Your task to perform on an android device: Open Amazon Image 0: 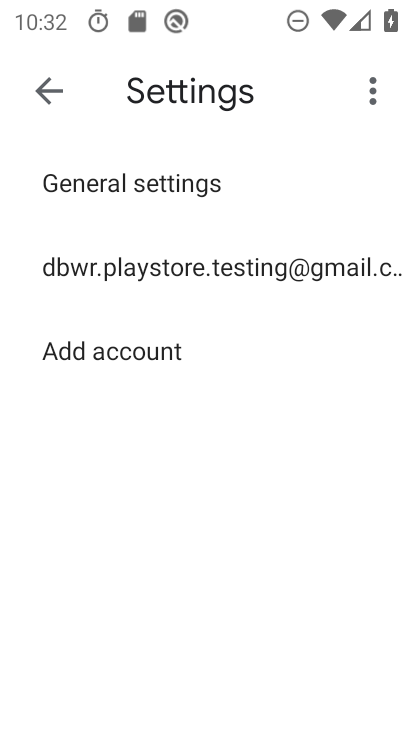
Step 0: press home button
Your task to perform on an android device: Open Amazon Image 1: 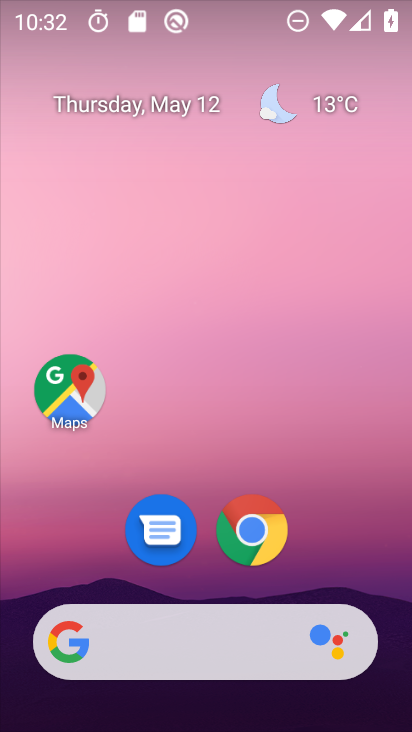
Step 1: click (276, 544)
Your task to perform on an android device: Open Amazon Image 2: 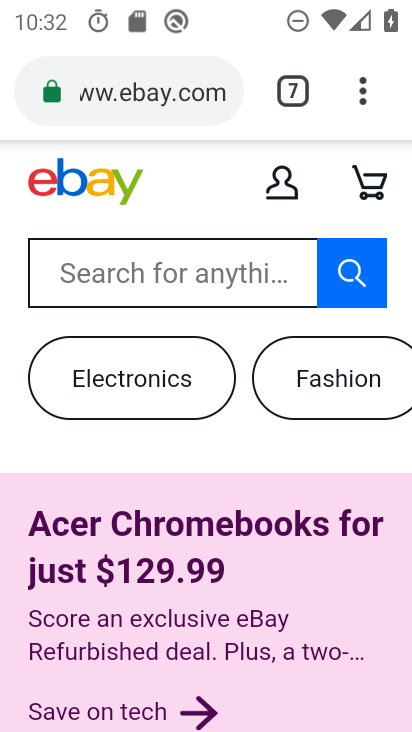
Step 2: click (296, 93)
Your task to perform on an android device: Open Amazon Image 3: 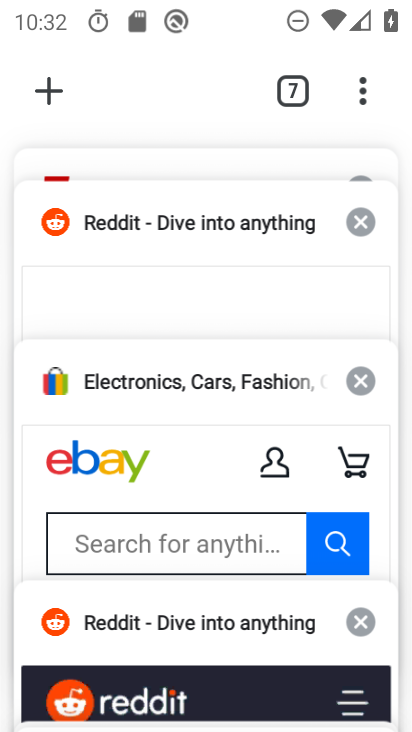
Step 3: click (39, 84)
Your task to perform on an android device: Open Amazon Image 4: 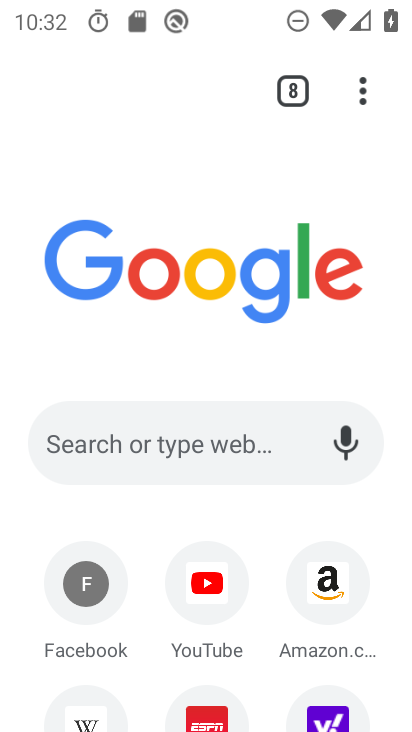
Step 4: drag from (165, 349) to (190, 55)
Your task to perform on an android device: Open Amazon Image 5: 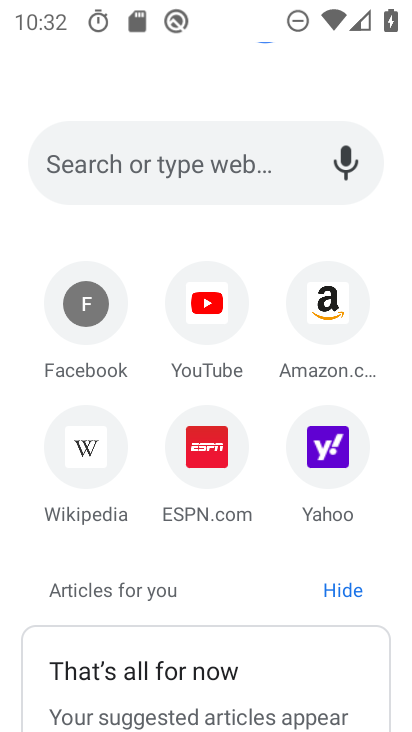
Step 5: click (312, 315)
Your task to perform on an android device: Open Amazon Image 6: 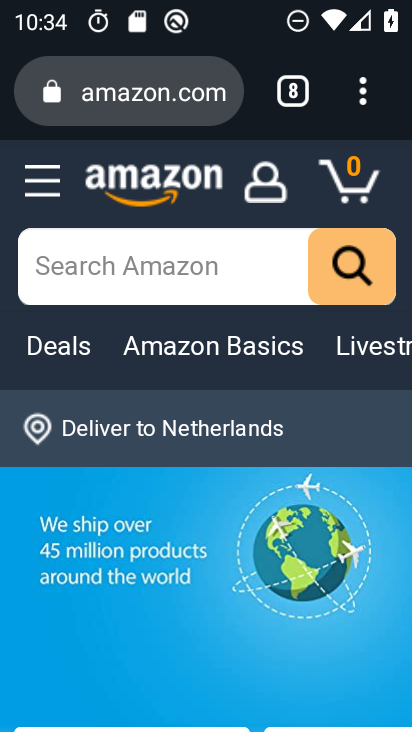
Step 6: task complete